Your task to perform on an android device: toggle data saver in the chrome app Image 0: 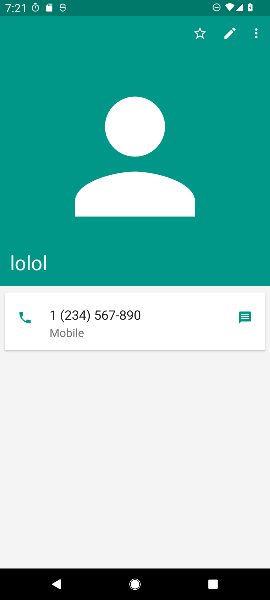
Step 0: press home button
Your task to perform on an android device: toggle data saver in the chrome app Image 1: 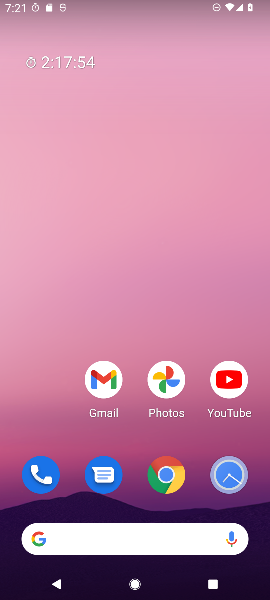
Step 1: drag from (57, 437) to (71, 217)
Your task to perform on an android device: toggle data saver in the chrome app Image 2: 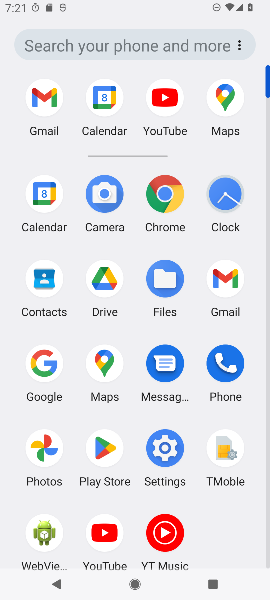
Step 2: click (161, 199)
Your task to perform on an android device: toggle data saver in the chrome app Image 3: 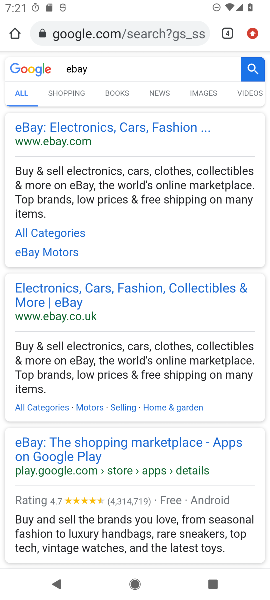
Step 3: click (254, 33)
Your task to perform on an android device: toggle data saver in the chrome app Image 4: 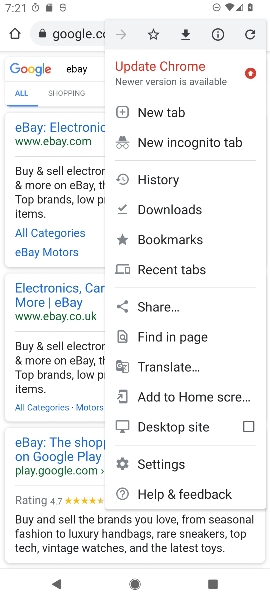
Step 4: click (170, 465)
Your task to perform on an android device: toggle data saver in the chrome app Image 5: 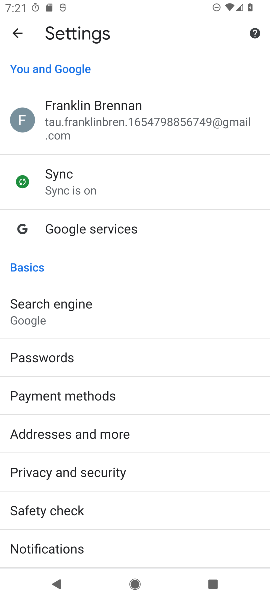
Step 5: drag from (221, 522) to (220, 440)
Your task to perform on an android device: toggle data saver in the chrome app Image 6: 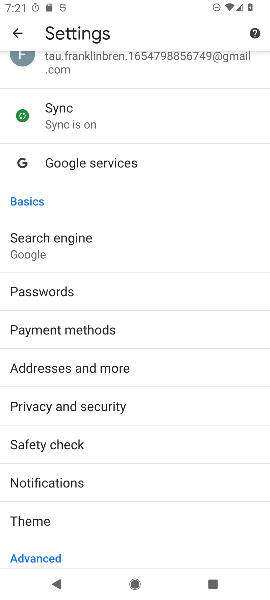
Step 6: drag from (193, 500) to (188, 390)
Your task to perform on an android device: toggle data saver in the chrome app Image 7: 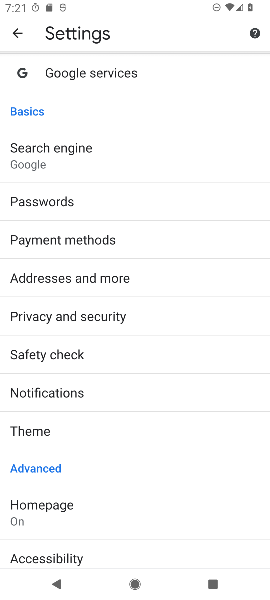
Step 7: drag from (209, 472) to (214, 394)
Your task to perform on an android device: toggle data saver in the chrome app Image 8: 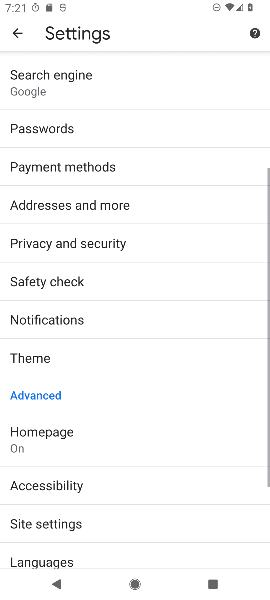
Step 8: drag from (203, 463) to (209, 361)
Your task to perform on an android device: toggle data saver in the chrome app Image 9: 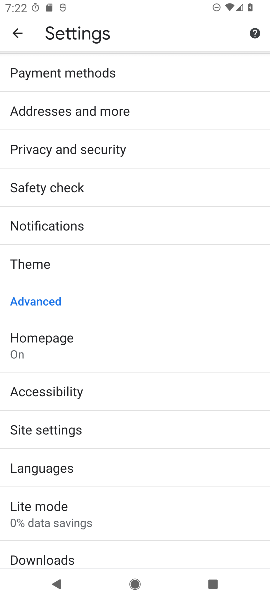
Step 9: drag from (203, 438) to (205, 341)
Your task to perform on an android device: toggle data saver in the chrome app Image 10: 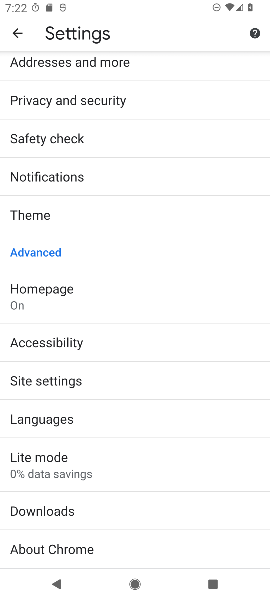
Step 10: drag from (188, 440) to (189, 360)
Your task to perform on an android device: toggle data saver in the chrome app Image 11: 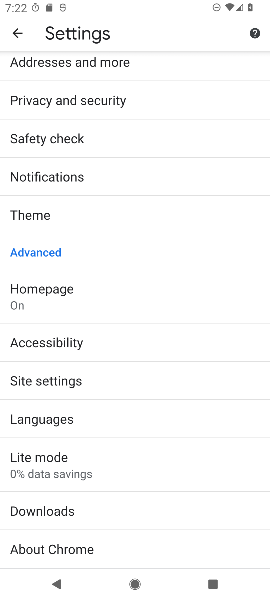
Step 11: click (170, 465)
Your task to perform on an android device: toggle data saver in the chrome app Image 12: 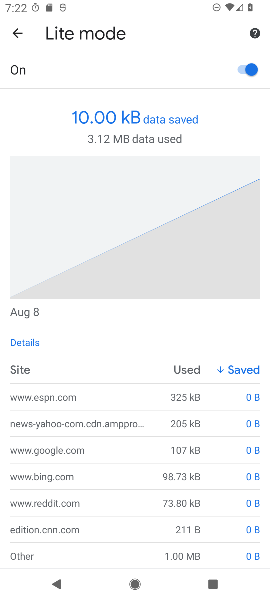
Step 12: task complete